Your task to perform on an android device: install app "ColorNote Notepad Notes" Image 0: 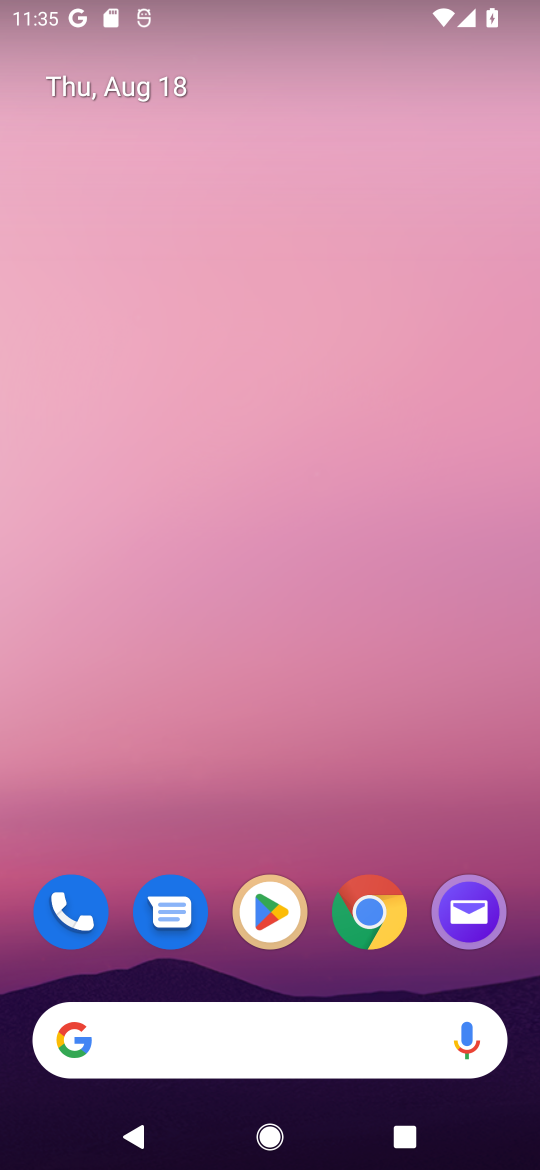
Step 0: click (262, 905)
Your task to perform on an android device: install app "ColorNote Notepad Notes" Image 1: 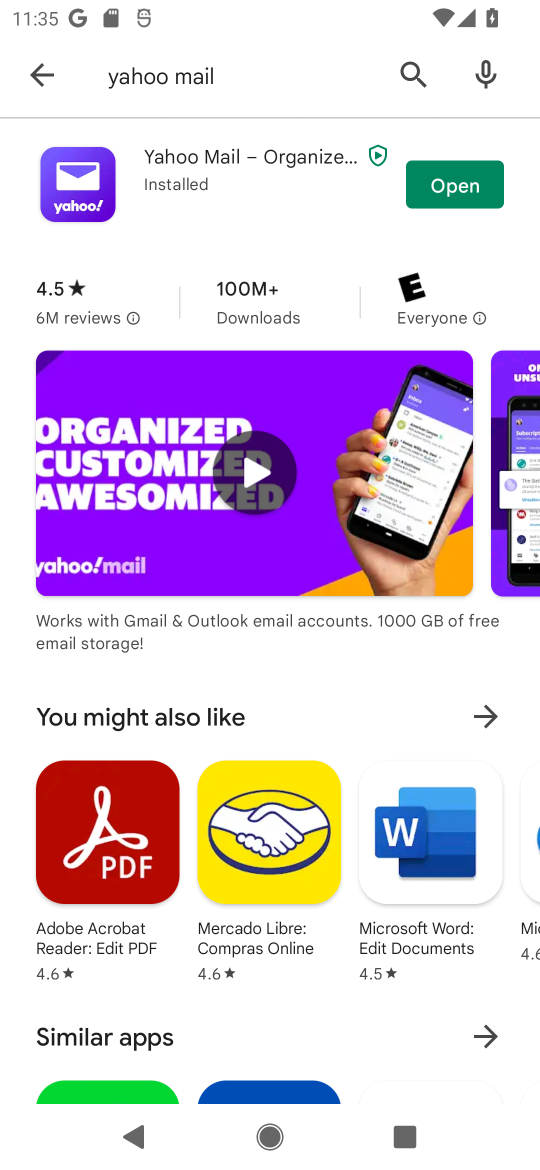
Step 1: click (411, 58)
Your task to perform on an android device: install app "ColorNote Notepad Notes" Image 2: 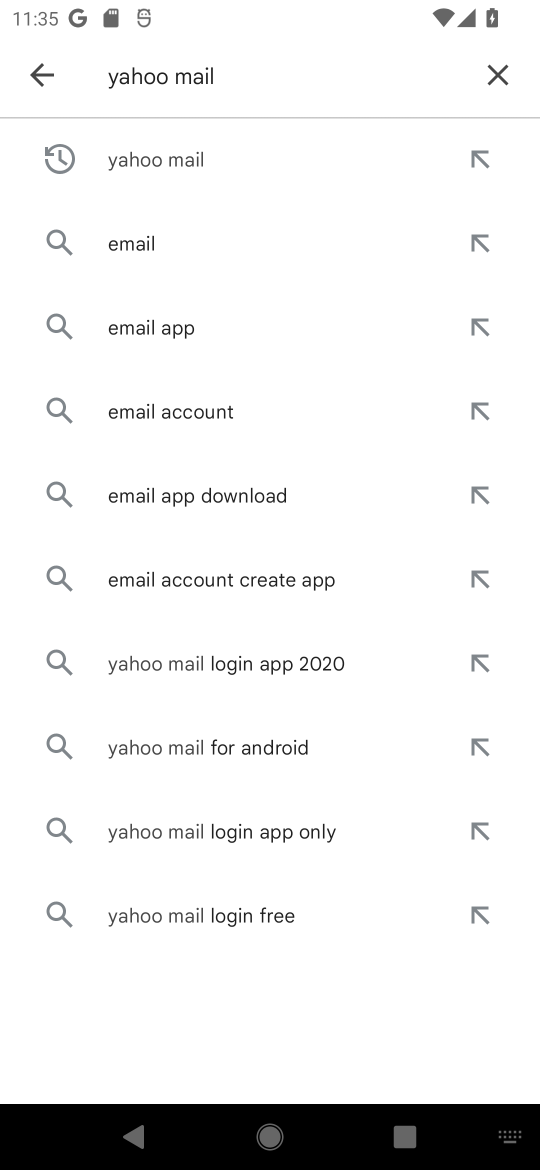
Step 2: click (293, 76)
Your task to perform on an android device: install app "ColorNote Notepad Notes" Image 3: 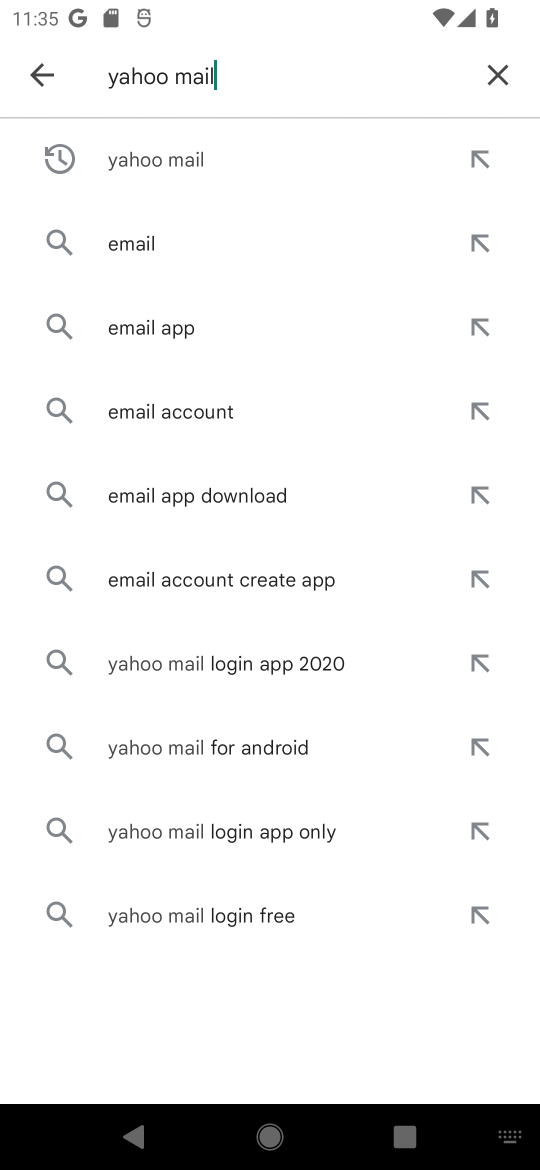
Step 3: click (518, 71)
Your task to perform on an android device: install app "ColorNote Notepad Notes" Image 4: 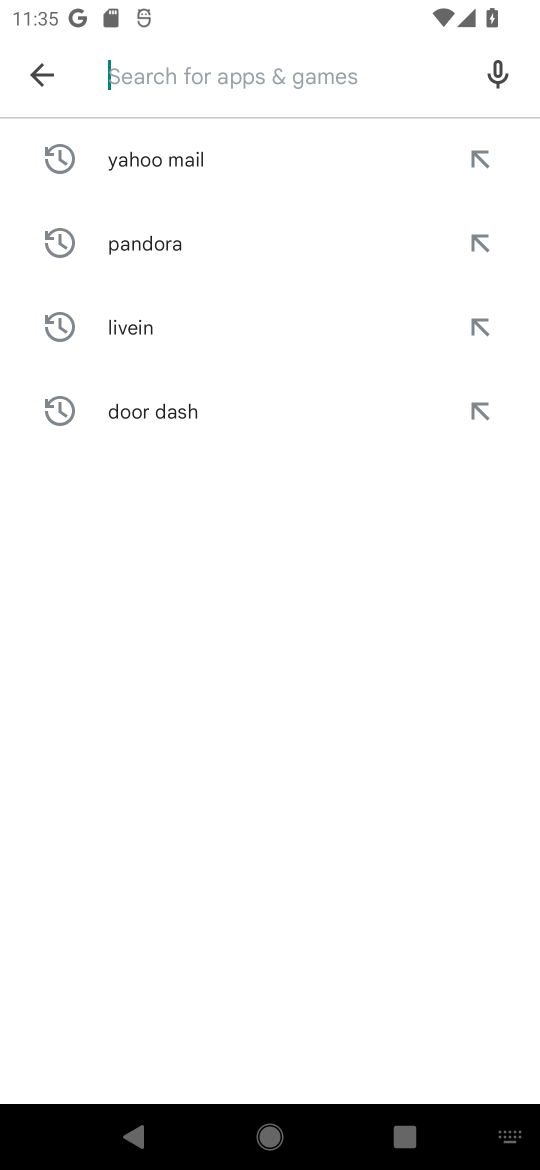
Step 4: click (271, 71)
Your task to perform on an android device: install app "ColorNote Notepad Notes" Image 5: 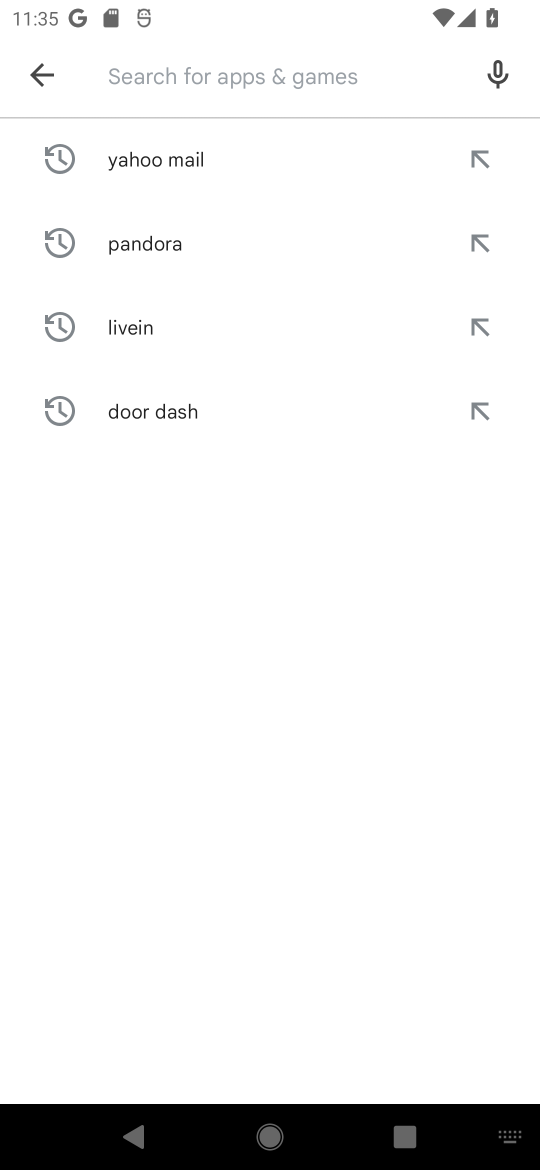
Step 5: click (154, 54)
Your task to perform on an android device: install app "ColorNote Notepad Notes" Image 6: 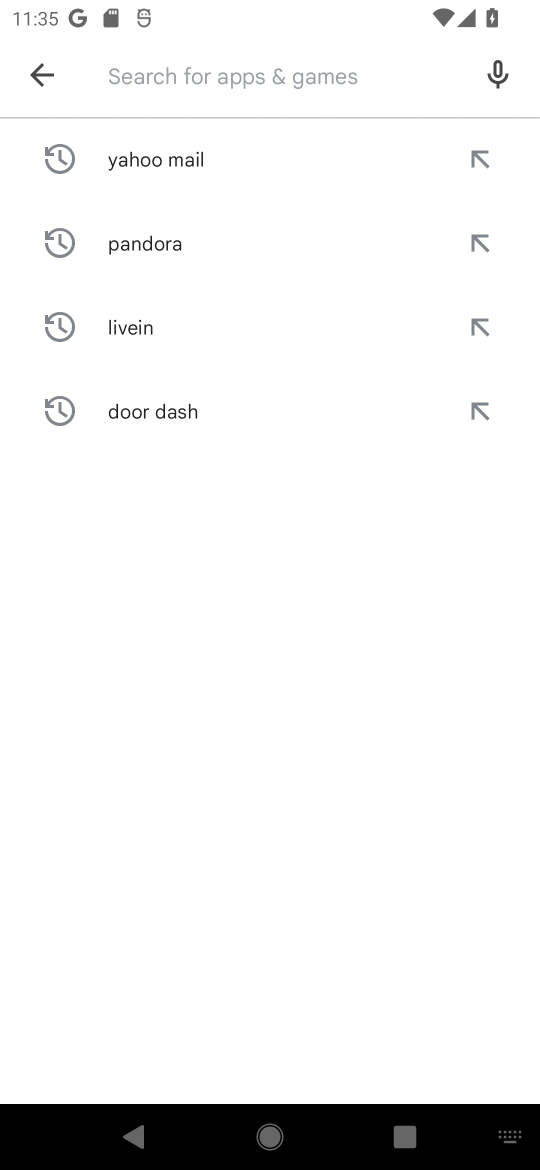
Step 6: type "ColorNote Notepad Notes"
Your task to perform on an android device: install app "ColorNote Notepad Notes" Image 7: 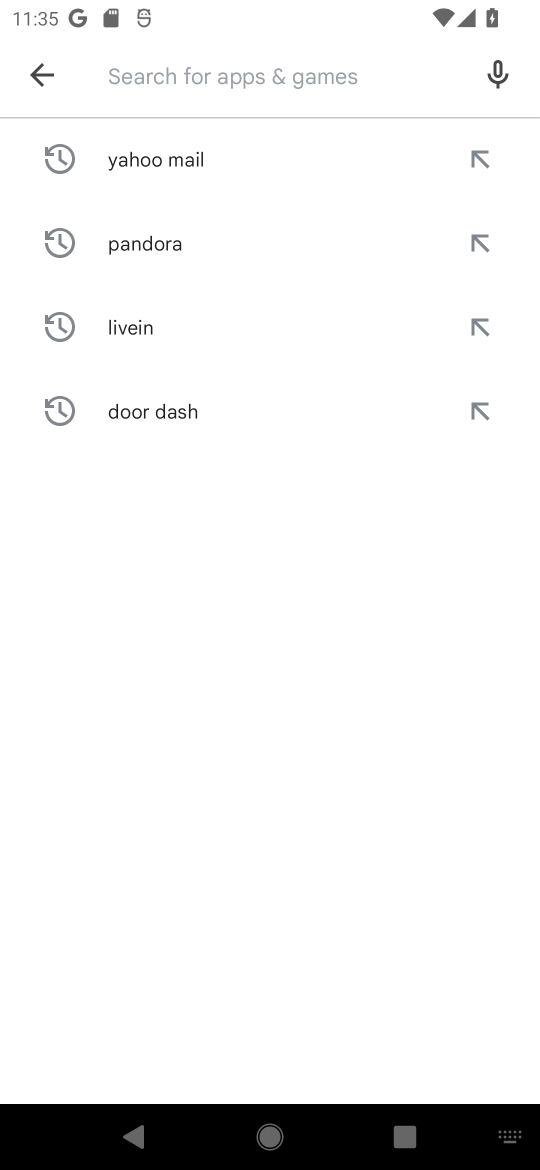
Step 7: click (355, 739)
Your task to perform on an android device: install app "ColorNote Notepad Notes" Image 8: 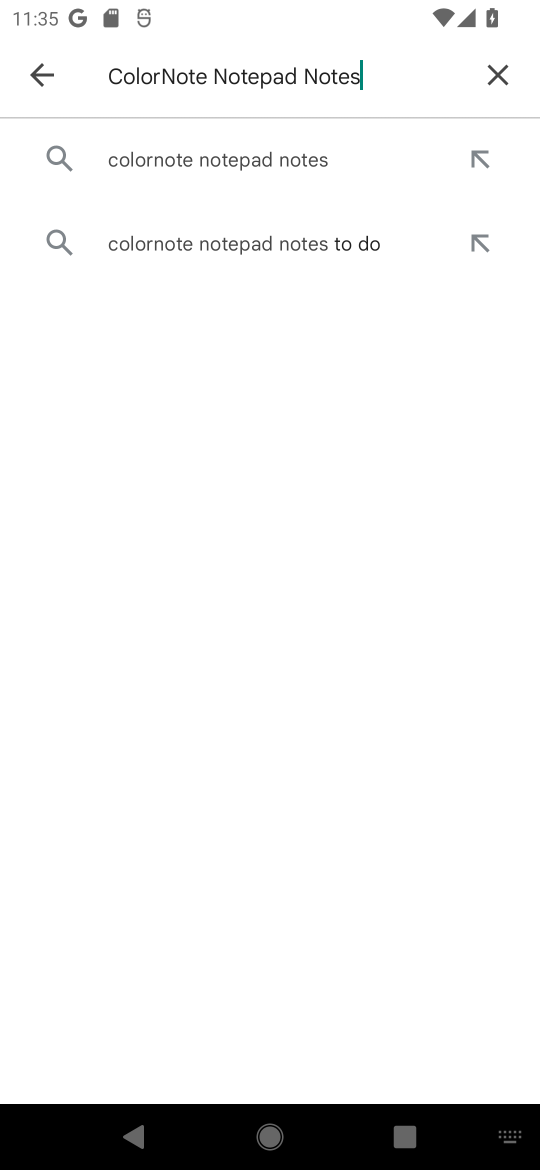
Step 8: click (209, 169)
Your task to perform on an android device: install app "ColorNote Notepad Notes" Image 9: 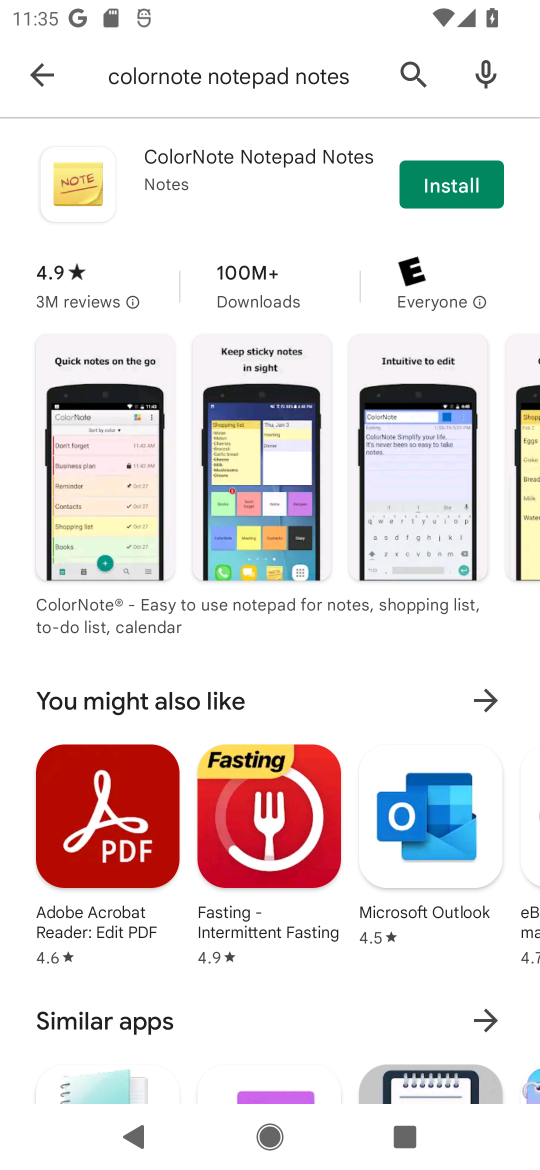
Step 9: click (468, 196)
Your task to perform on an android device: install app "ColorNote Notepad Notes" Image 10: 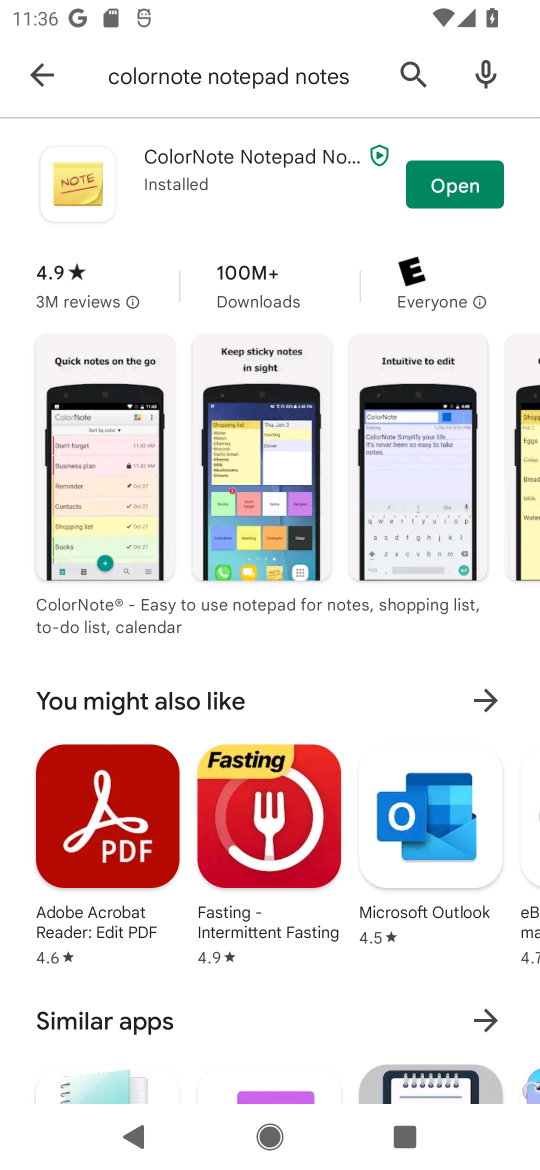
Step 10: click (429, 182)
Your task to perform on an android device: install app "ColorNote Notepad Notes" Image 11: 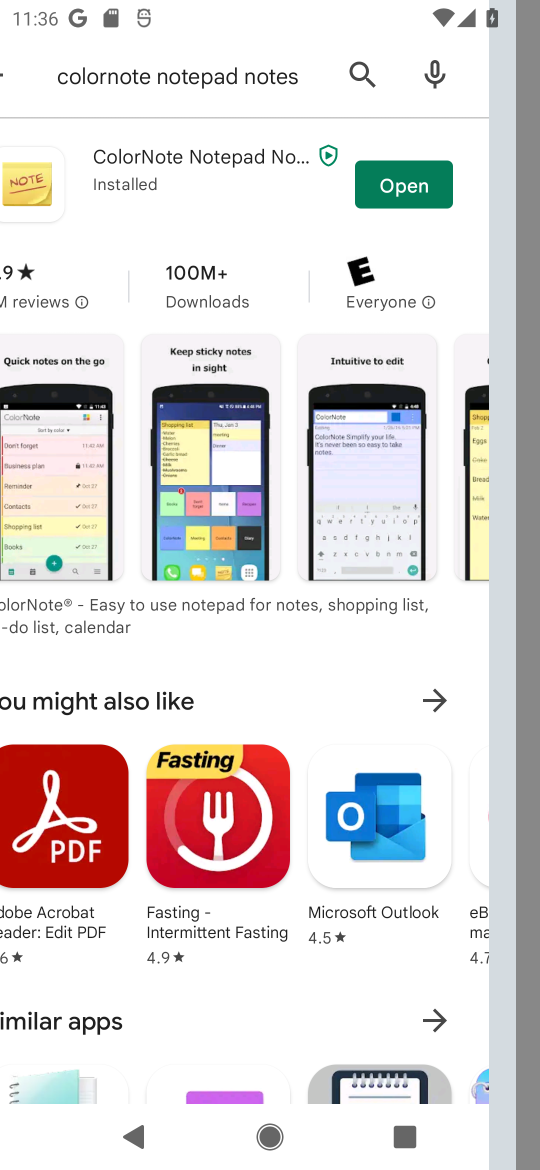
Step 11: task complete